Your task to perform on an android device: Empty the shopping cart on costco.com. Add amazon basics triple a to the cart on costco.com Image 0: 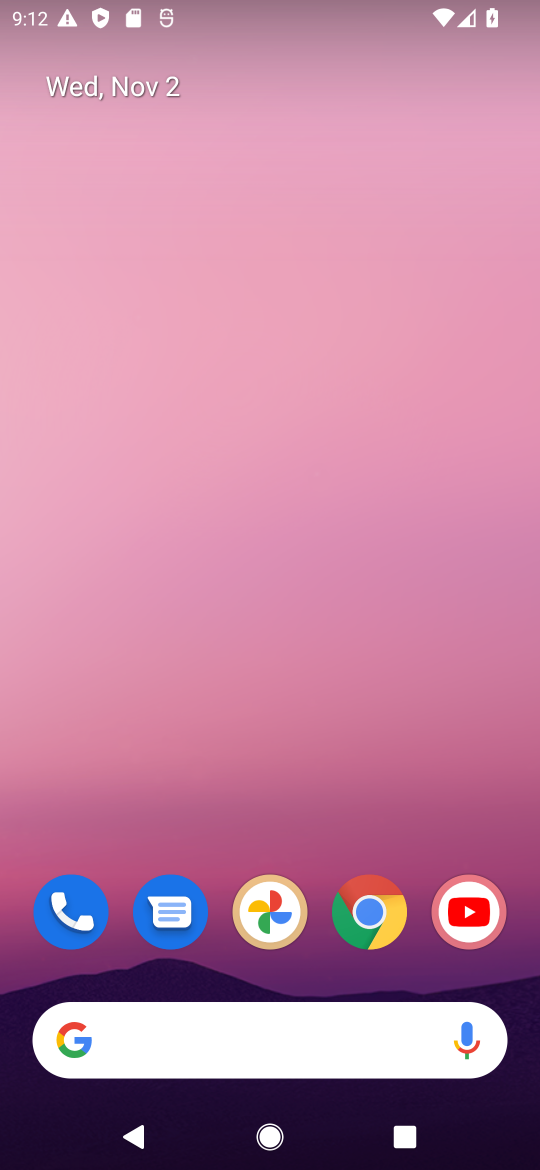
Step 0: drag from (331, 1097) to (270, 89)
Your task to perform on an android device: Empty the shopping cart on costco.com. Add amazon basics triple a to the cart on costco.com Image 1: 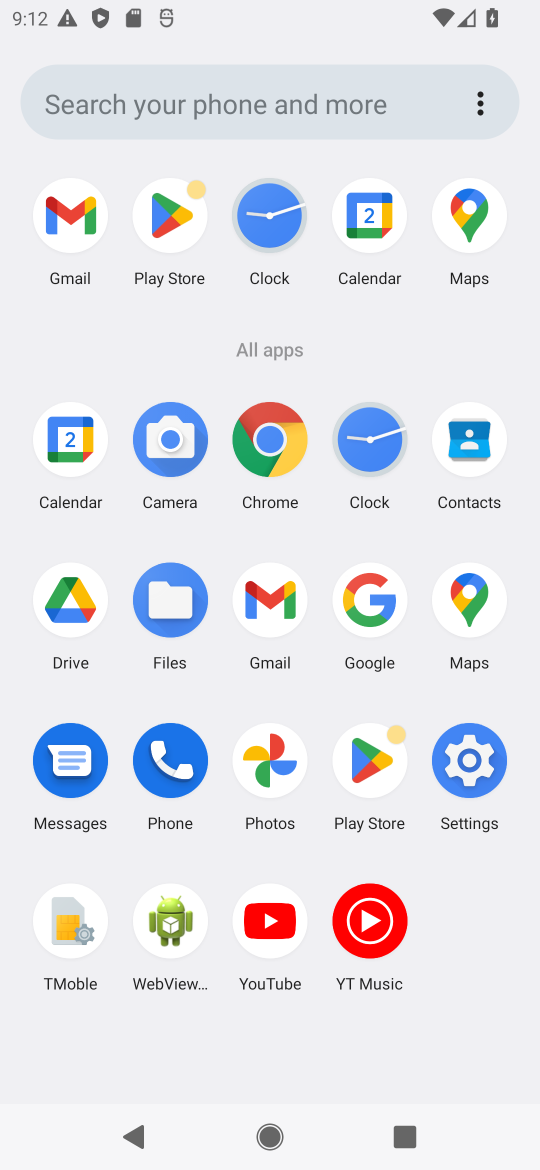
Step 1: click (272, 423)
Your task to perform on an android device: Empty the shopping cart on costco.com. Add amazon basics triple a to the cart on costco.com Image 2: 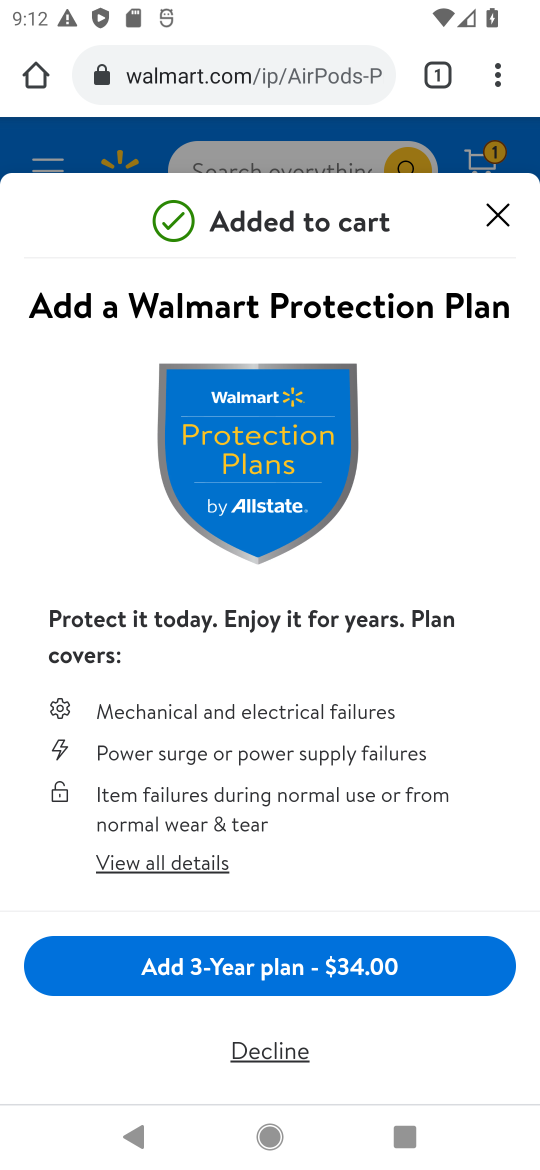
Step 2: click (494, 214)
Your task to perform on an android device: Empty the shopping cart on costco.com. Add amazon basics triple a to the cart on costco.com Image 3: 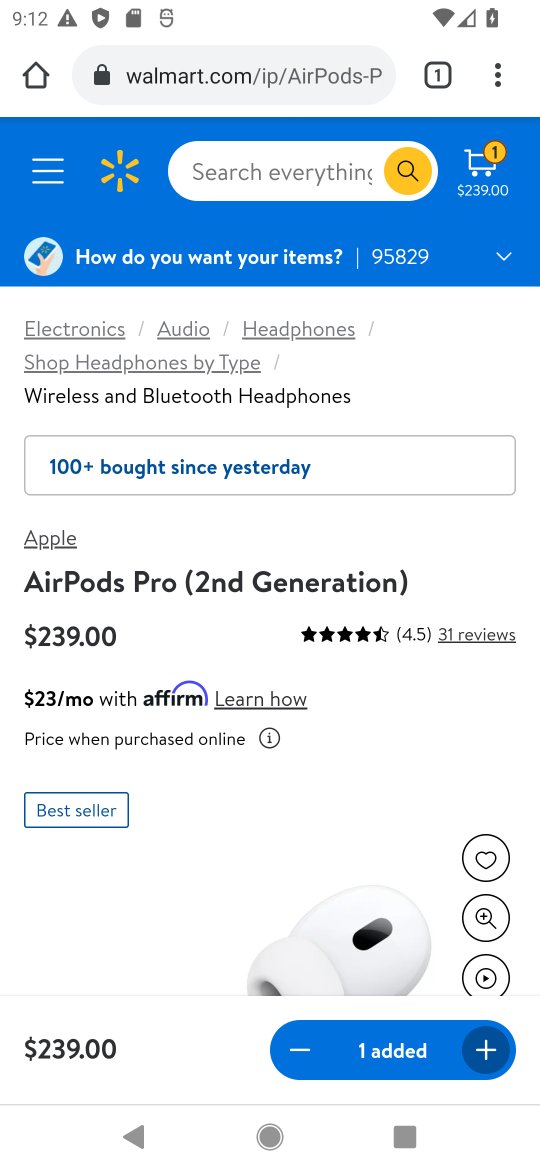
Step 3: click (280, 66)
Your task to perform on an android device: Empty the shopping cart on costco.com. Add amazon basics triple a to the cart on costco.com Image 4: 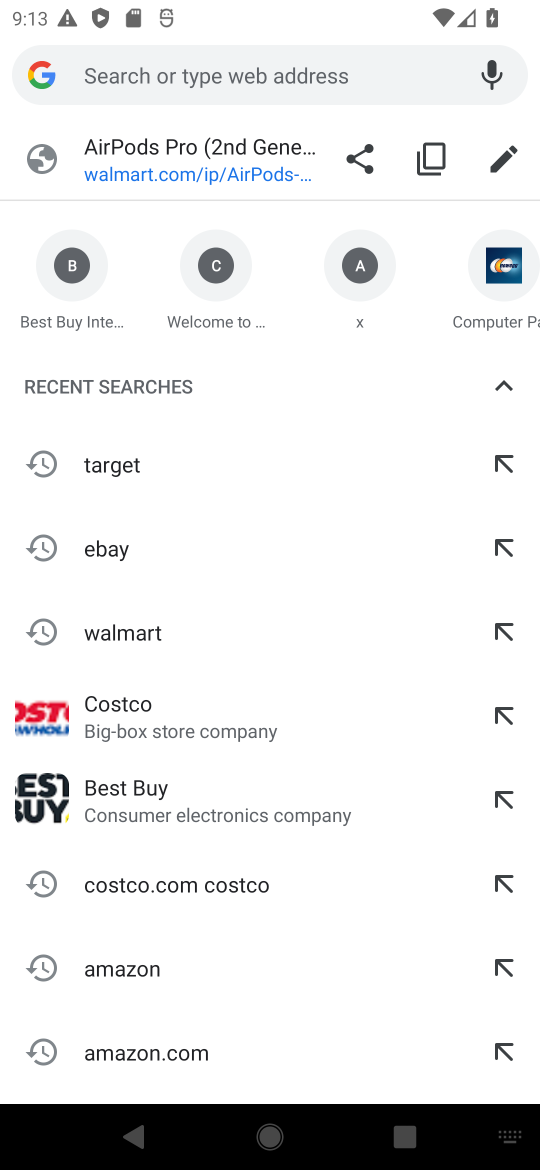
Step 4: type "costco.com"
Your task to perform on an android device: Empty the shopping cart on costco.com. Add amazon basics triple a to the cart on costco.com Image 5: 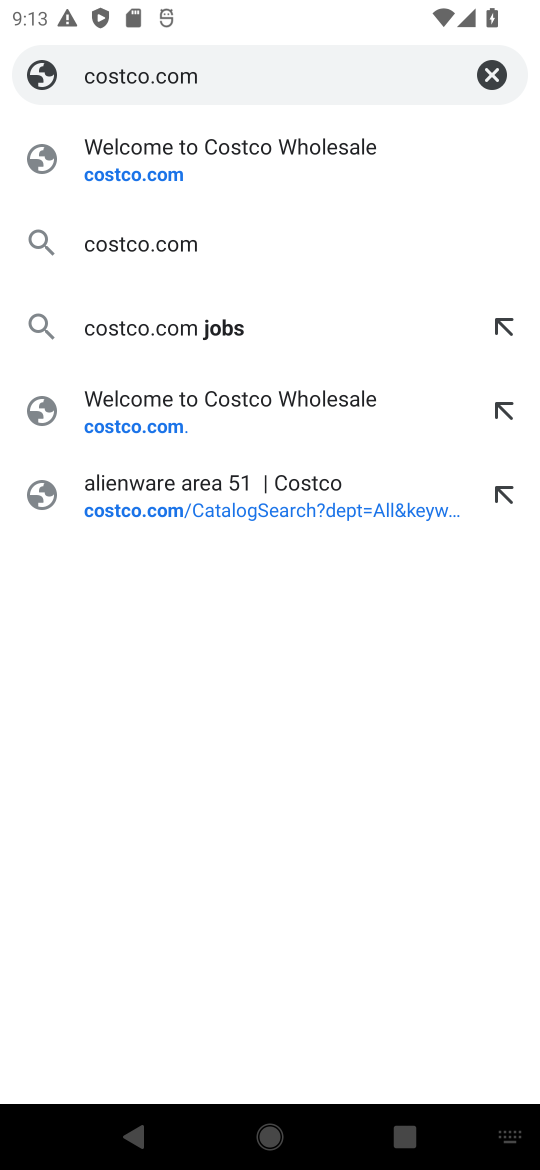
Step 5: click (138, 177)
Your task to perform on an android device: Empty the shopping cart on costco.com. Add amazon basics triple a to the cart on costco.com Image 6: 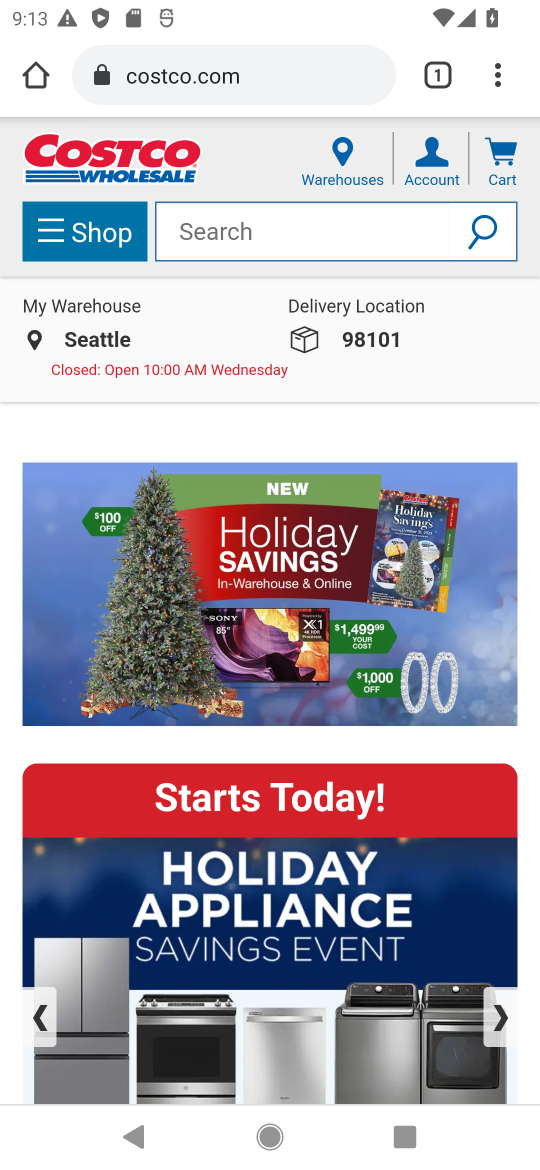
Step 6: click (259, 238)
Your task to perform on an android device: Empty the shopping cart on costco.com. Add amazon basics triple a to the cart on costco.com Image 7: 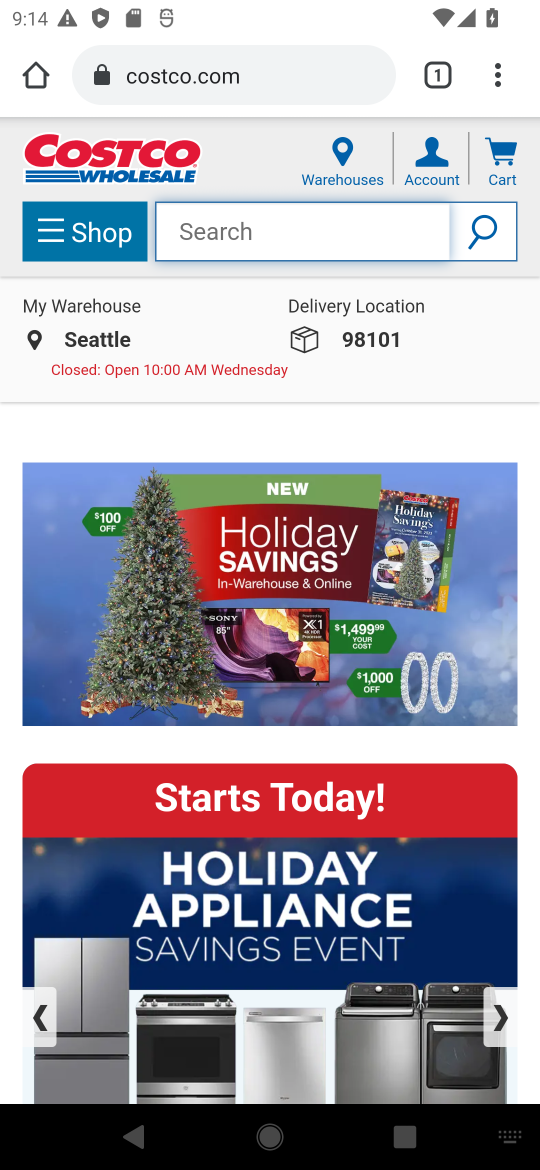
Step 7: type "amazon basics triple a "
Your task to perform on an android device: Empty the shopping cart on costco.com. Add amazon basics triple a to the cart on costco.com Image 8: 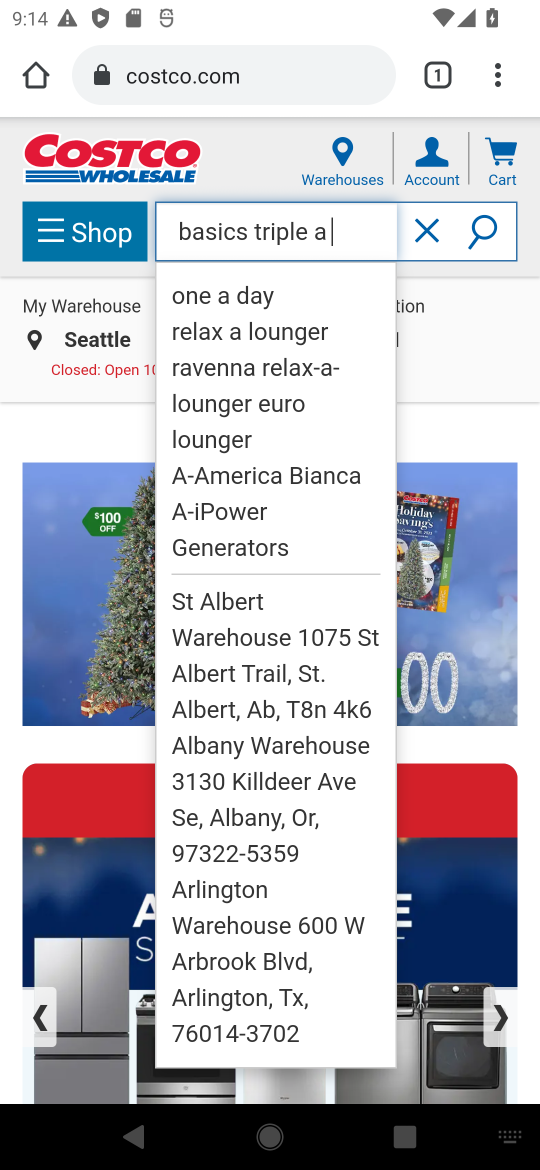
Step 8: click (487, 218)
Your task to perform on an android device: Empty the shopping cart on costco.com. Add amazon basics triple a to the cart on costco.com Image 9: 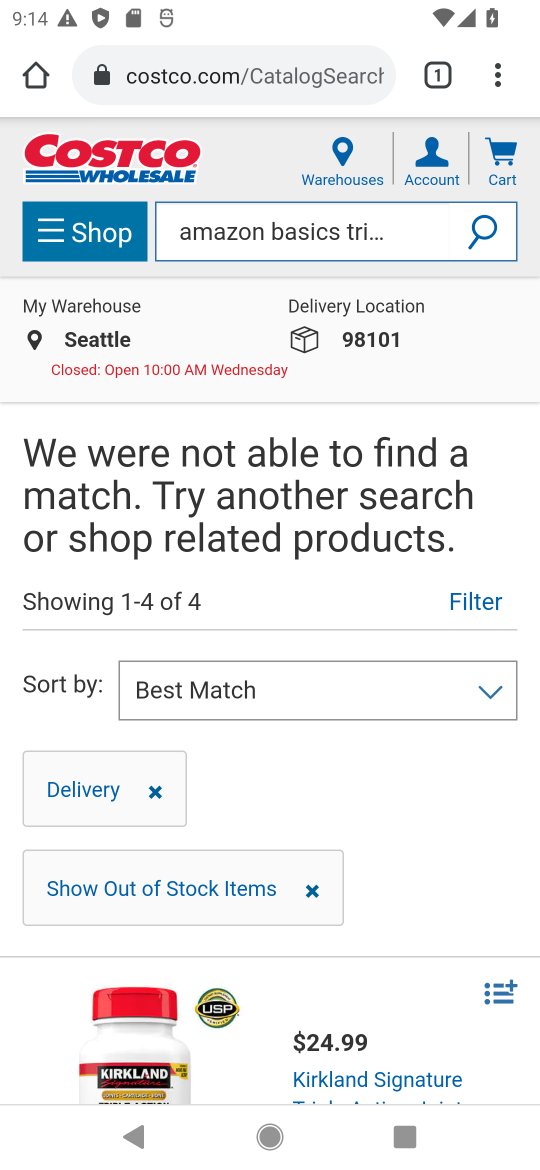
Step 9: task complete